Your task to perform on an android device: Open the stopwatch Image 0: 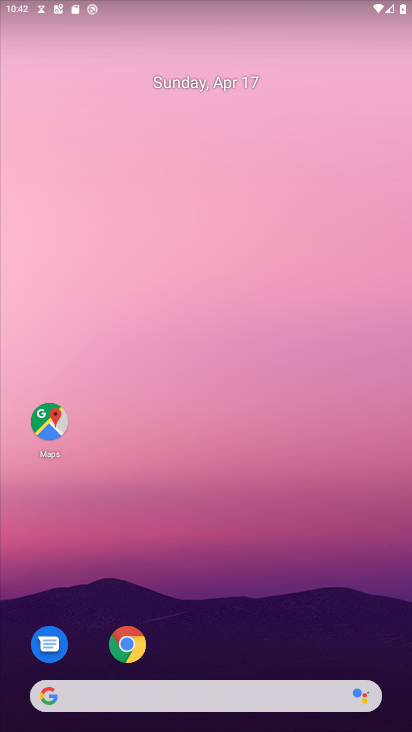
Step 0: drag from (232, 549) to (283, 173)
Your task to perform on an android device: Open the stopwatch Image 1: 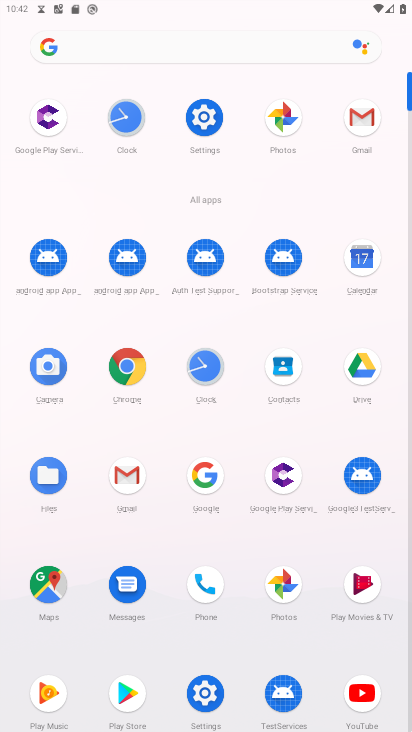
Step 1: click (205, 374)
Your task to perform on an android device: Open the stopwatch Image 2: 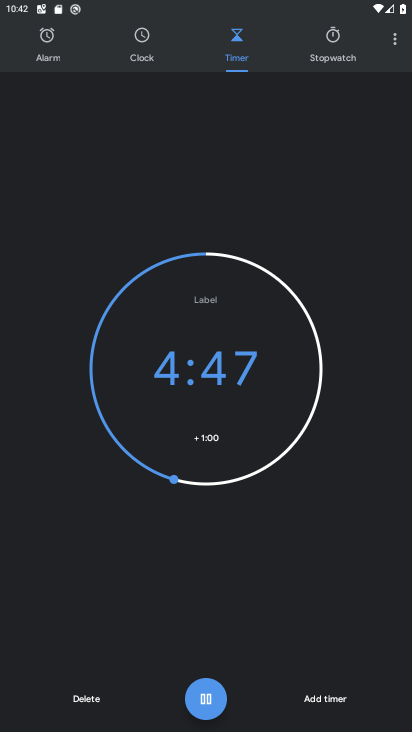
Step 2: click (341, 38)
Your task to perform on an android device: Open the stopwatch Image 3: 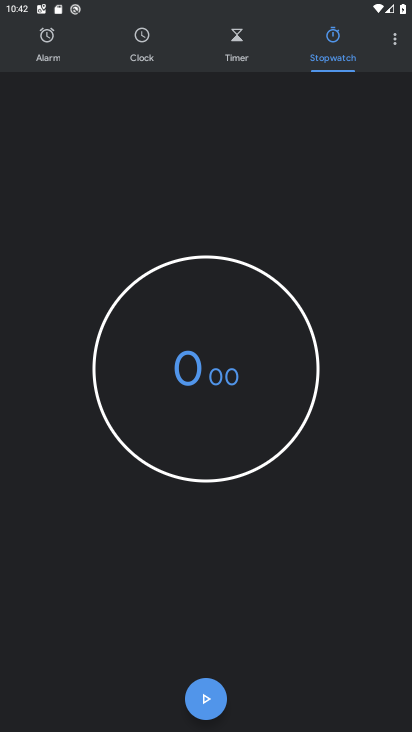
Step 3: task complete